Your task to perform on an android device: turn smart compose on in the gmail app Image 0: 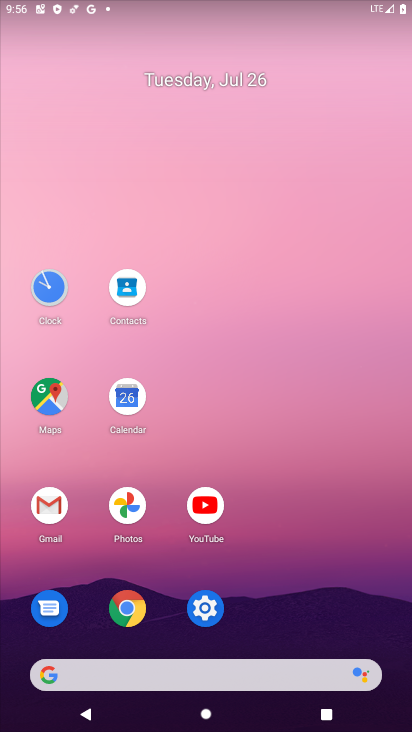
Step 0: click (51, 510)
Your task to perform on an android device: turn smart compose on in the gmail app Image 1: 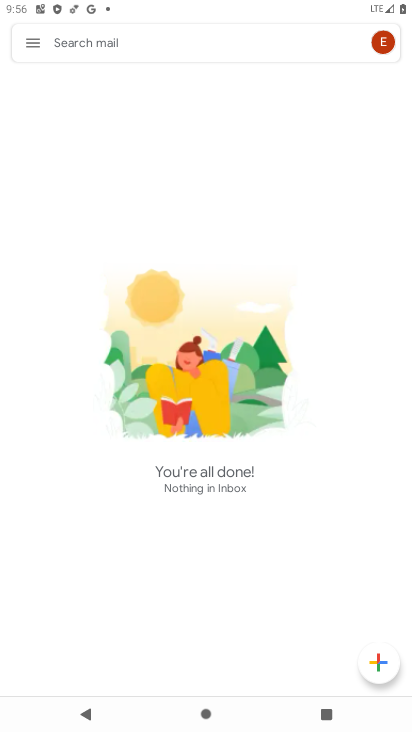
Step 1: click (31, 45)
Your task to perform on an android device: turn smart compose on in the gmail app Image 2: 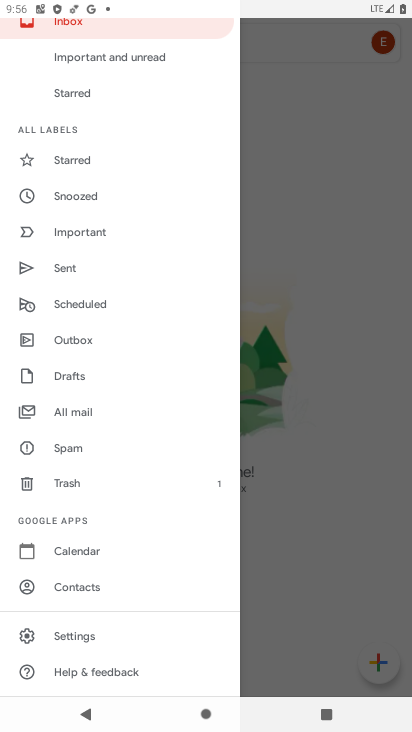
Step 2: click (77, 630)
Your task to perform on an android device: turn smart compose on in the gmail app Image 3: 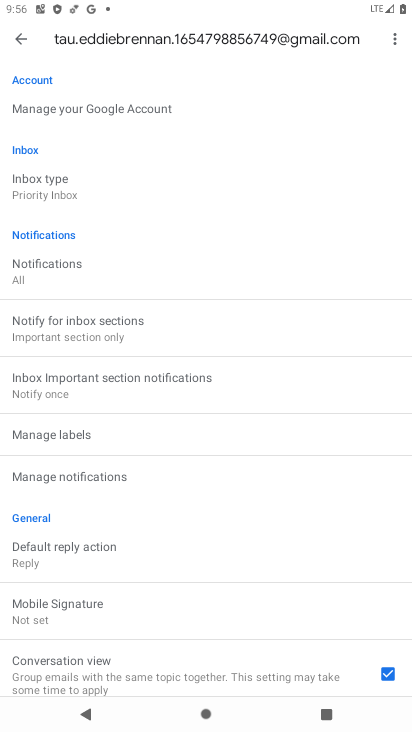
Step 3: task complete